Your task to perform on an android device: make emails show in primary in the gmail app Image 0: 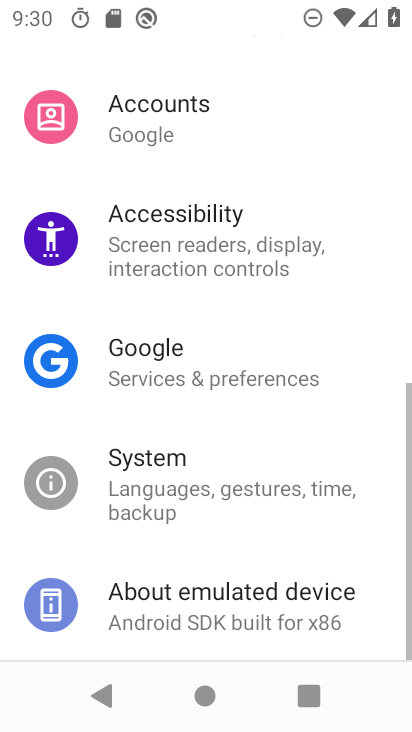
Step 0: click (297, 67)
Your task to perform on an android device: make emails show in primary in the gmail app Image 1: 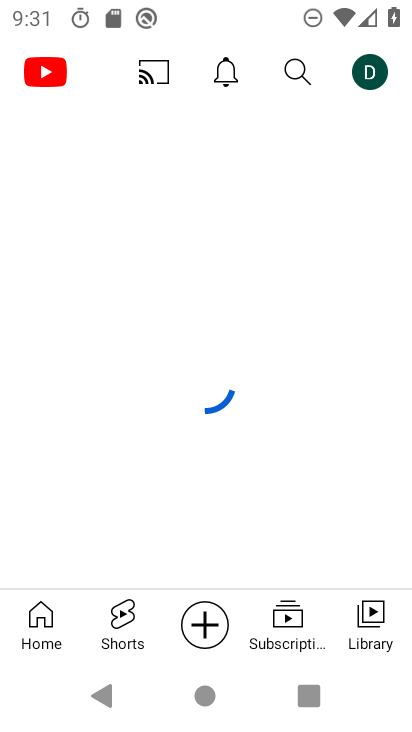
Step 1: press home button
Your task to perform on an android device: make emails show in primary in the gmail app Image 2: 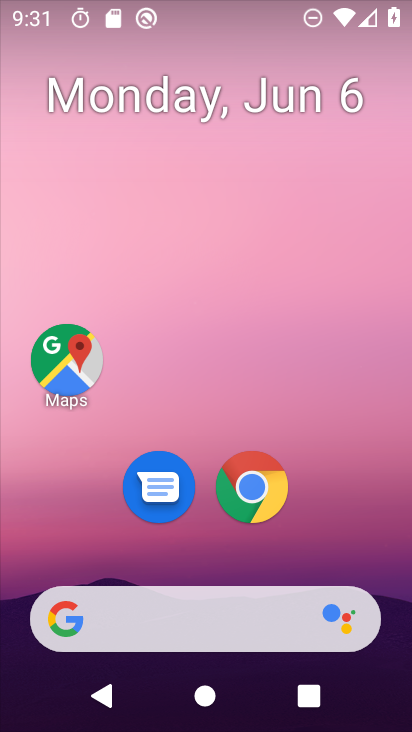
Step 2: drag from (394, 637) to (291, 30)
Your task to perform on an android device: make emails show in primary in the gmail app Image 3: 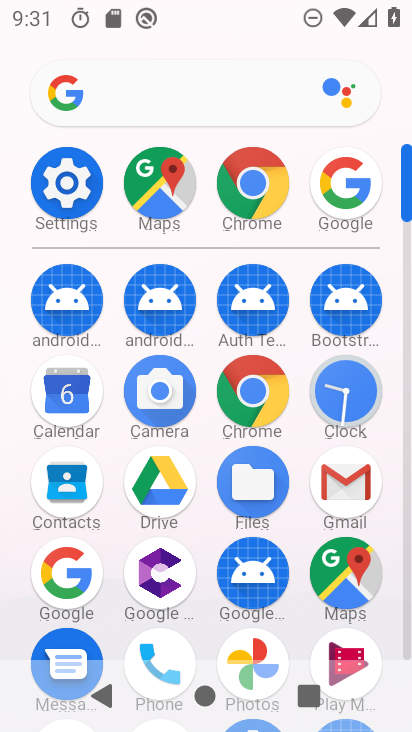
Step 3: click (349, 486)
Your task to perform on an android device: make emails show in primary in the gmail app Image 4: 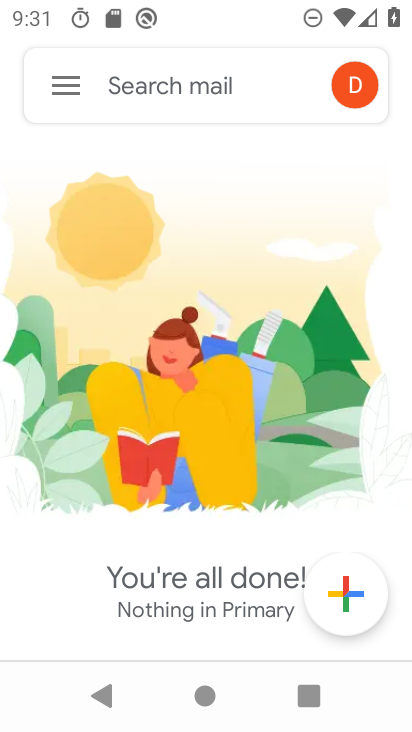
Step 4: click (65, 83)
Your task to perform on an android device: make emails show in primary in the gmail app Image 5: 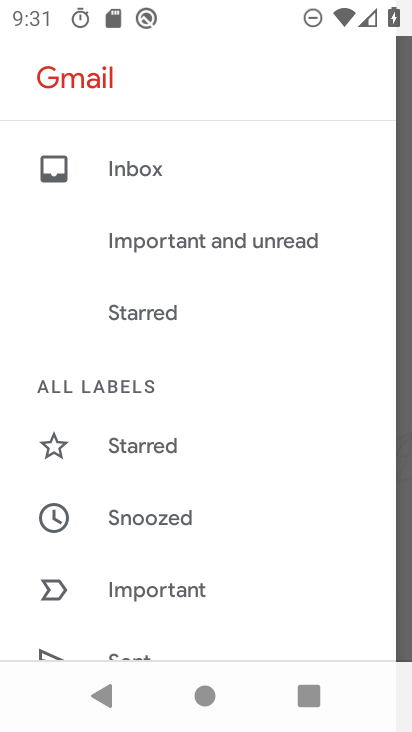
Step 5: click (163, 178)
Your task to perform on an android device: make emails show in primary in the gmail app Image 6: 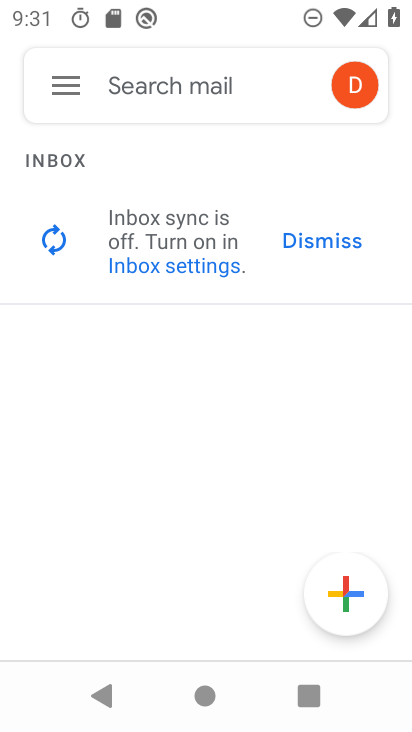
Step 6: task complete